Your task to perform on an android device: Do I have any events today? Image 0: 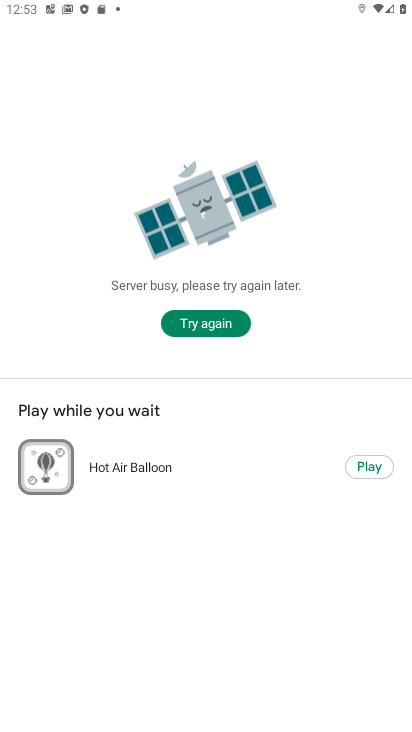
Step 0: press home button
Your task to perform on an android device: Do I have any events today? Image 1: 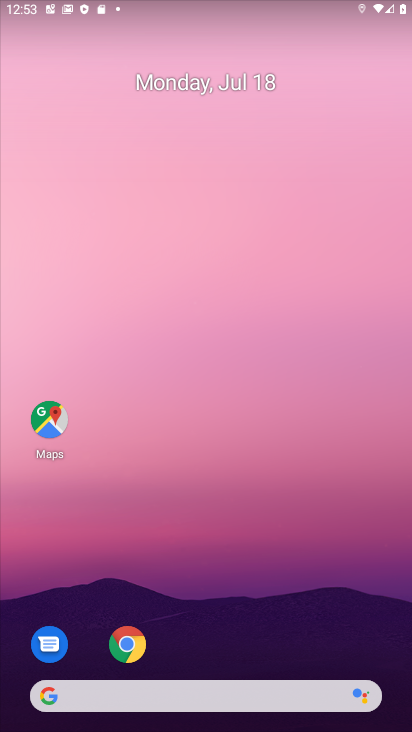
Step 1: drag from (276, 659) to (303, 71)
Your task to perform on an android device: Do I have any events today? Image 2: 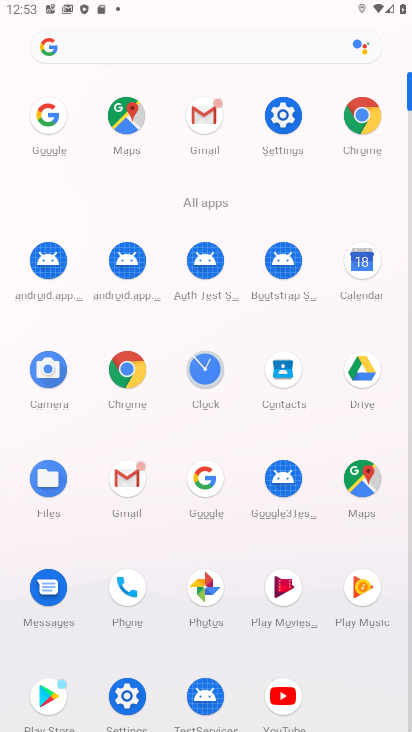
Step 2: click (367, 258)
Your task to perform on an android device: Do I have any events today? Image 3: 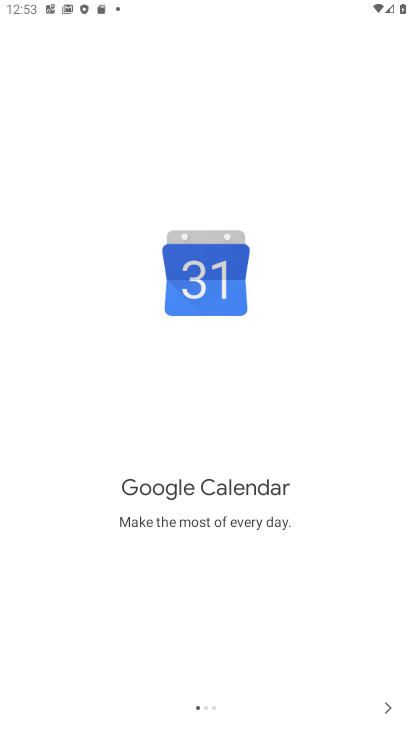
Step 3: click (376, 711)
Your task to perform on an android device: Do I have any events today? Image 4: 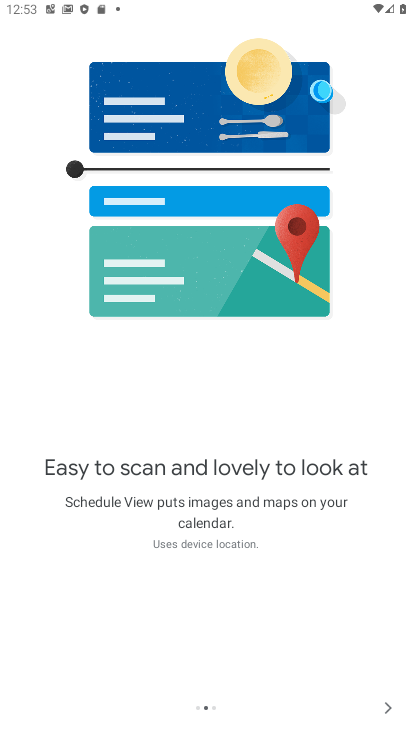
Step 4: click (376, 711)
Your task to perform on an android device: Do I have any events today? Image 5: 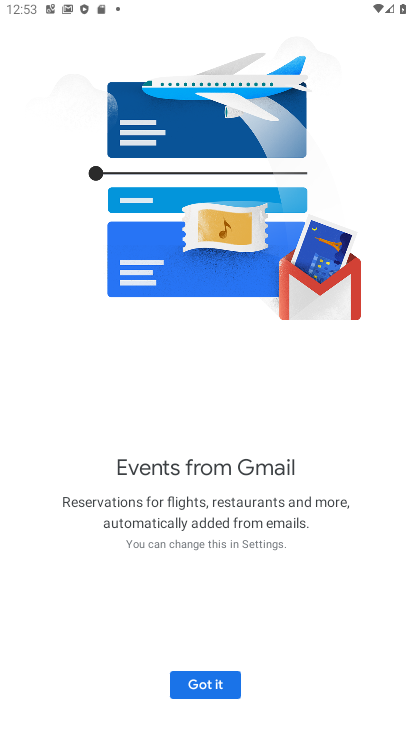
Step 5: click (222, 681)
Your task to perform on an android device: Do I have any events today? Image 6: 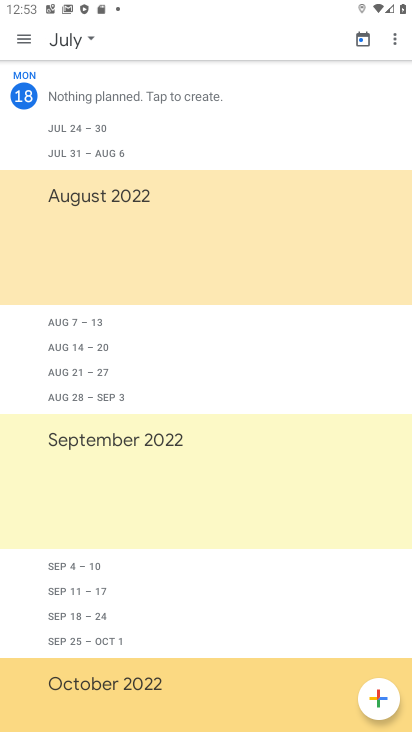
Step 6: click (71, 43)
Your task to perform on an android device: Do I have any events today? Image 7: 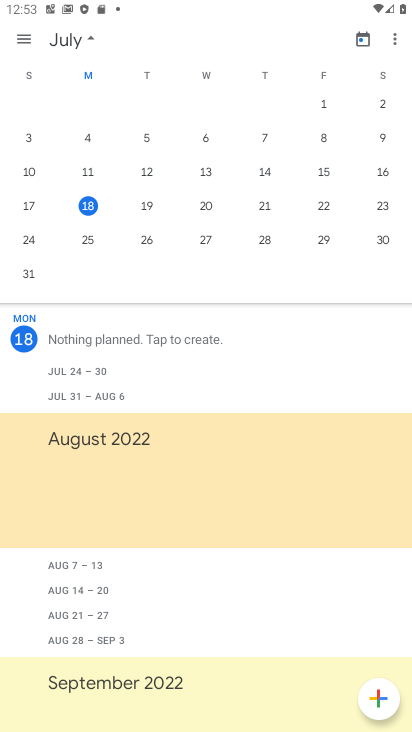
Step 7: click (91, 211)
Your task to perform on an android device: Do I have any events today? Image 8: 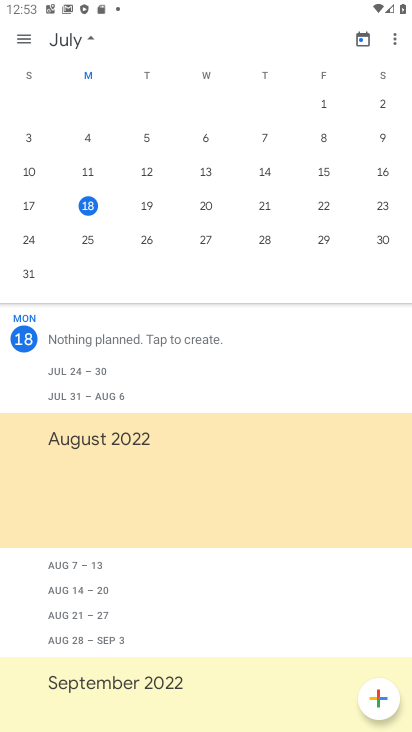
Step 8: task complete